Your task to perform on an android device: turn off javascript in the chrome app Image 0: 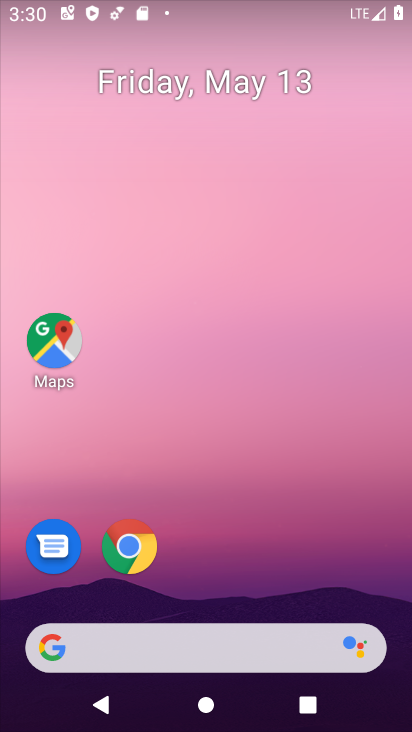
Step 0: click (127, 542)
Your task to perform on an android device: turn off javascript in the chrome app Image 1: 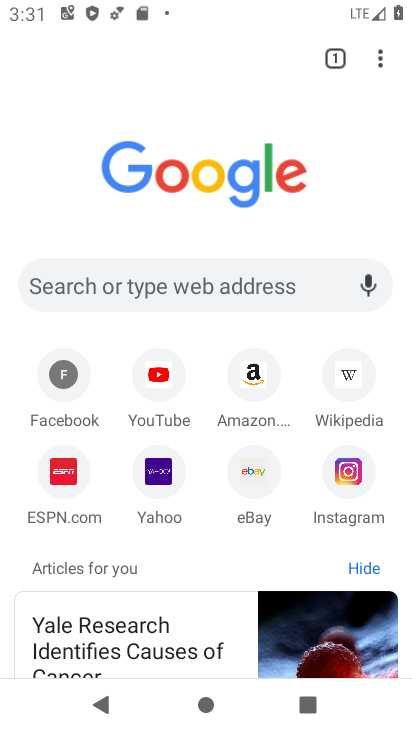
Step 1: click (371, 60)
Your task to perform on an android device: turn off javascript in the chrome app Image 2: 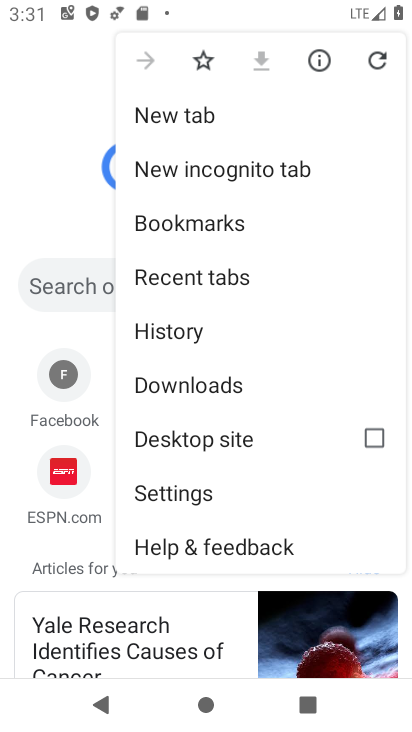
Step 2: click (207, 506)
Your task to perform on an android device: turn off javascript in the chrome app Image 3: 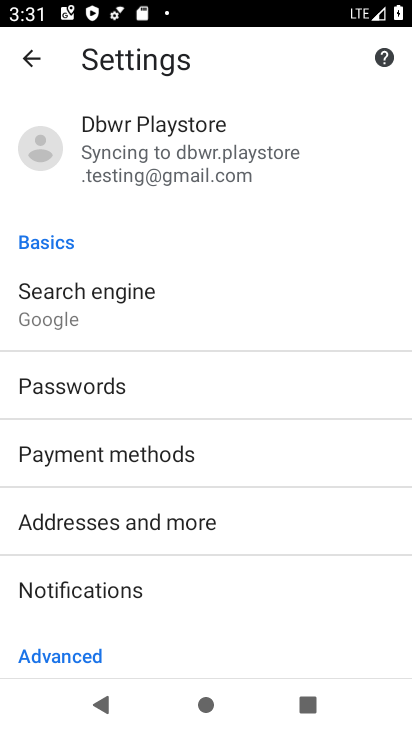
Step 3: drag from (129, 586) to (175, 151)
Your task to perform on an android device: turn off javascript in the chrome app Image 4: 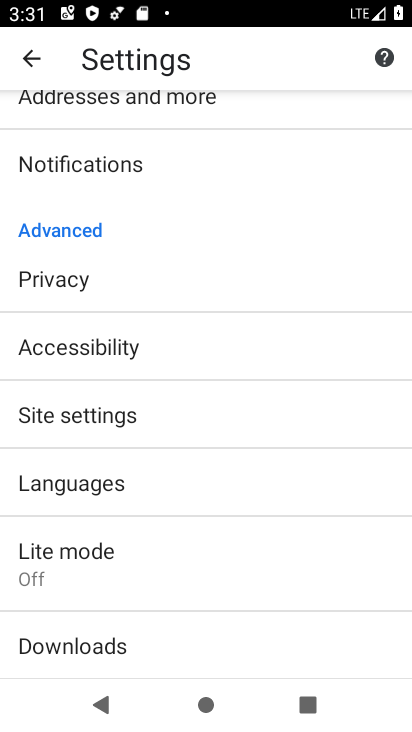
Step 4: click (92, 417)
Your task to perform on an android device: turn off javascript in the chrome app Image 5: 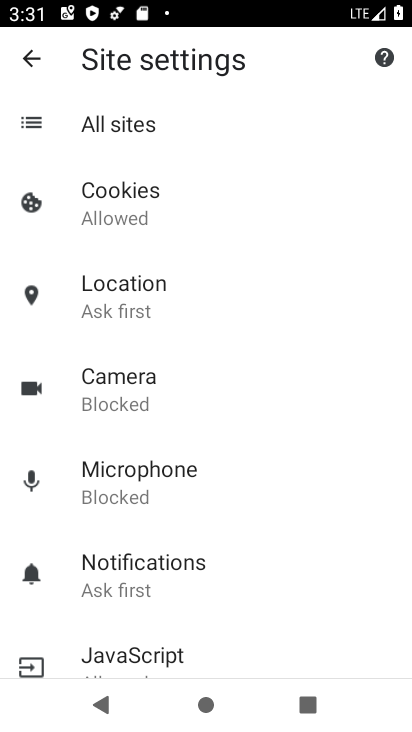
Step 5: click (117, 655)
Your task to perform on an android device: turn off javascript in the chrome app Image 6: 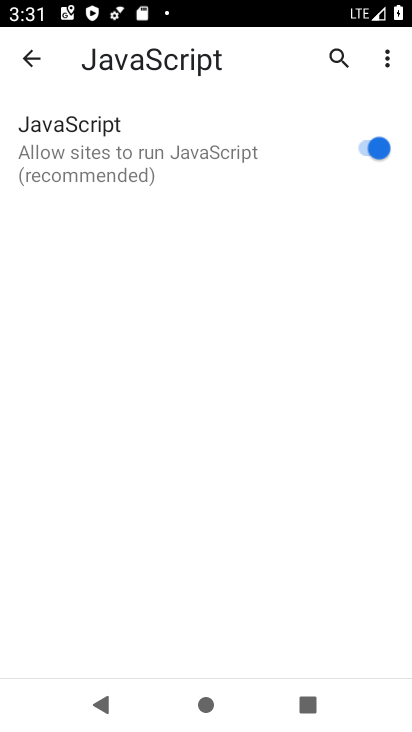
Step 6: click (383, 144)
Your task to perform on an android device: turn off javascript in the chrome app Image 7: 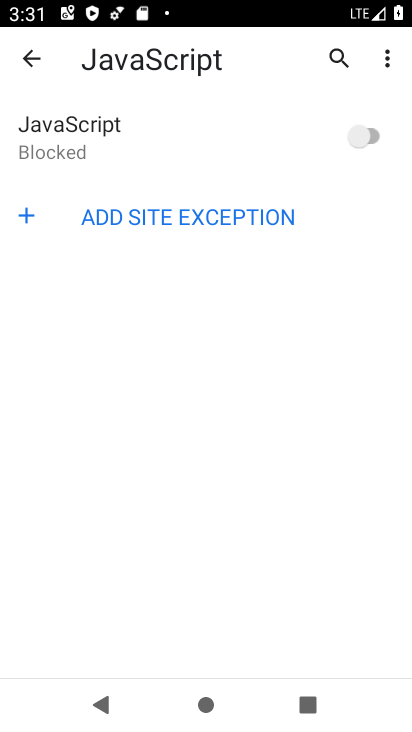
Step 7: task complete